Your task to perform on an android device: Go to display settings Image 0: 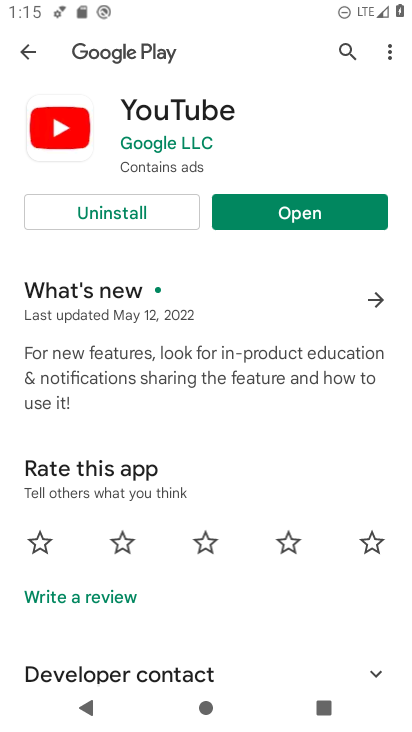
Step 0: press home button
Your task to perform on an android device: Go to display settings Image 1: 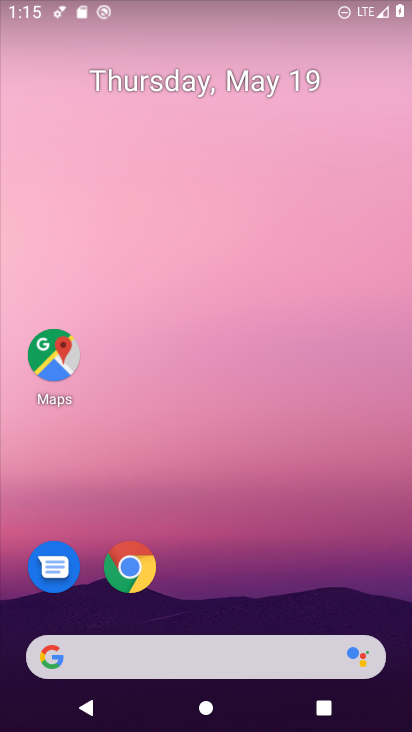
Step 1: drag from (192, 455) to (227, 65)
Your task to perform on an android device: Go to display settings Image 2: 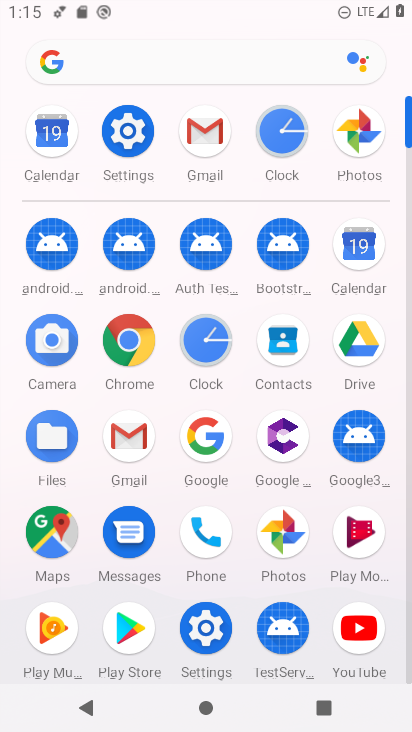
Step 2: click (127, 127)
Your task to perform on an android device: Go to display settings Image 3: 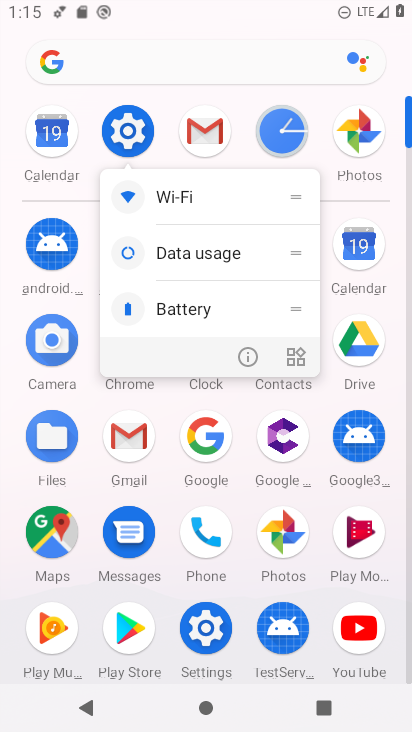
Step 3: click (127, 127)
Your task to perform on an android device: Go to display settings Image 4: 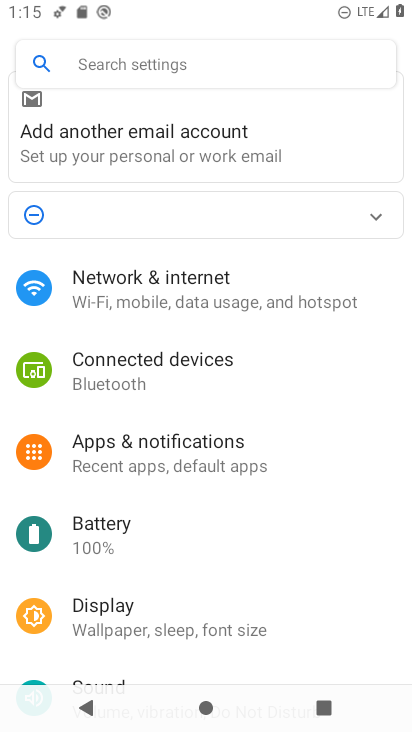
Step 4: click (192, 609)
Your task to perform on an android device: Go to display settings Image 5: 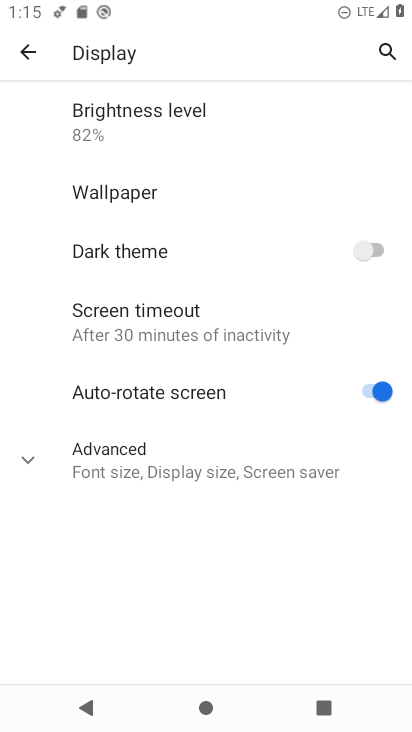
Step 5: task complete